Your task to perform on an android device: turn off airplane mode Image 0: 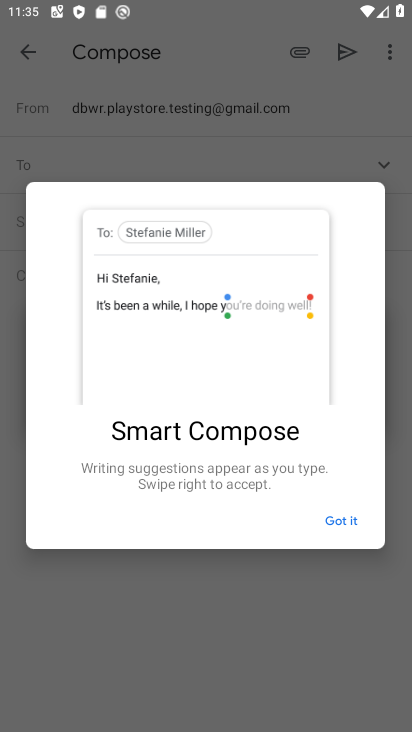
Step 0: drag from (297, 1) to (322, 400)
Your task to perform on an android device: turn off airplane mode Image 1: 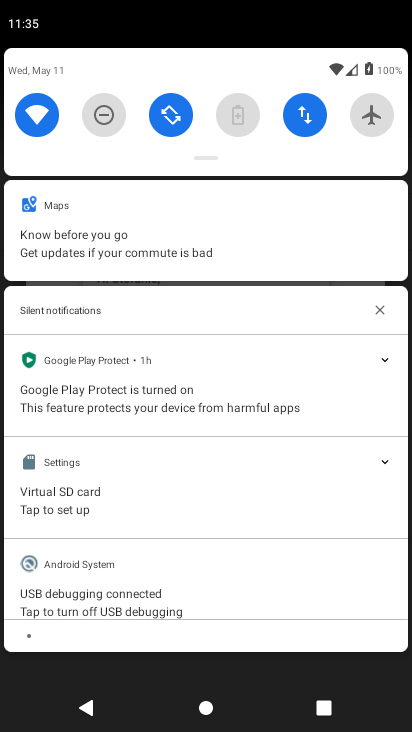
Step 1: task complete